Your task to perform on an android device: uninstall "Google Duo" Image 0: 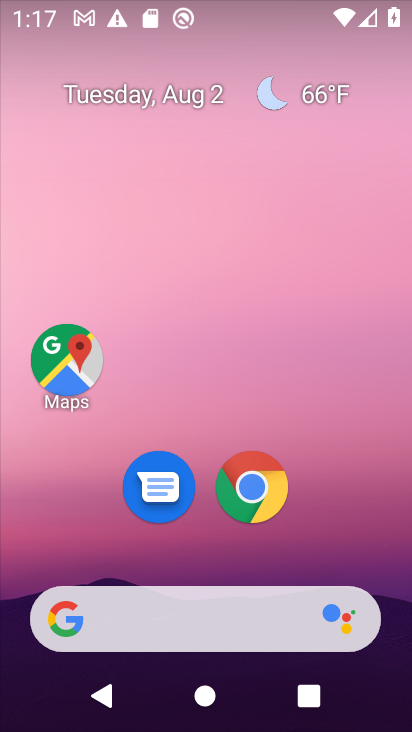
Step 0: drag from (185, 626) to (260, 70)
Your task to perform on an android device: uninstall "Google Duo" Image 1: 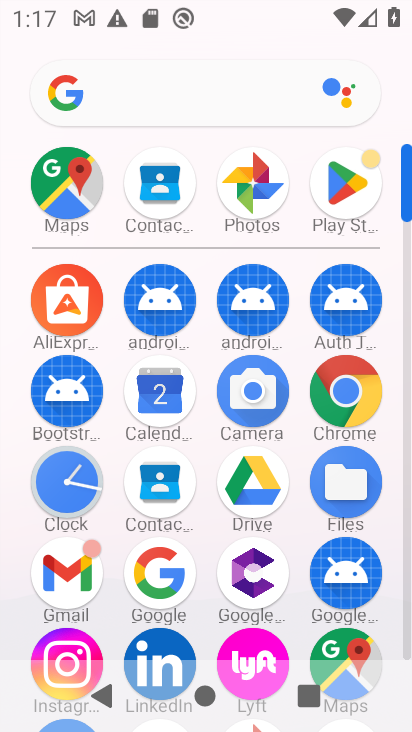
Step 1: click (332, 191)
Your task to perform on an android device: uninstall "Google Duo" Image 2: 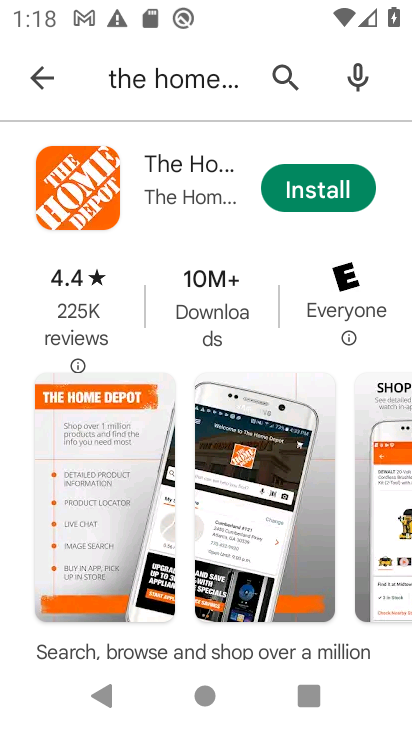
Step 2: click (41, 77)
Your task to perform on an android device: uninstall "Google Duo" Image 3: 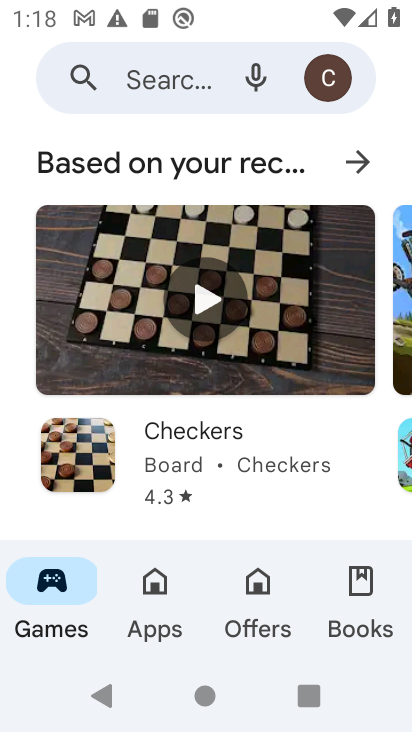
Step 3: click (163, 82)
Your task to perform on an android device: uninstall "Google Duo" Image 4: 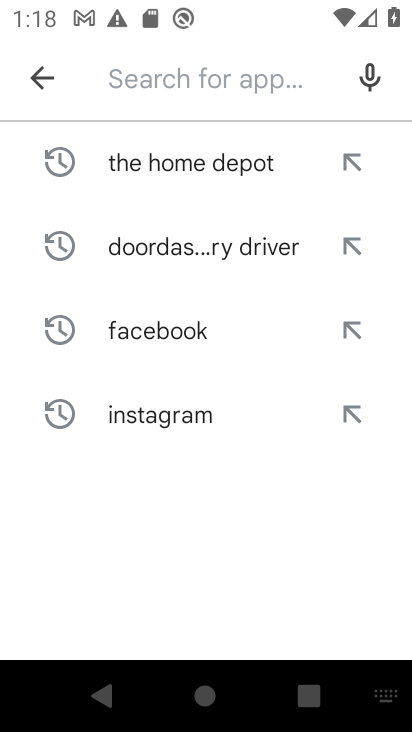
Step 4: type "https://www.amazon.in/Sparx-SM-214-Black-Flourescent-Sneakers/dp/B016BZKYHG/ref=sr_1_2?keywords=sparx+lofer+shooesfor+men&qid=1659428253&sprefix=spark+laofer+%2Caps%2C220&sr=8-2"
Your task to perform on an android device: uninstall "Google Duo" Image 5: 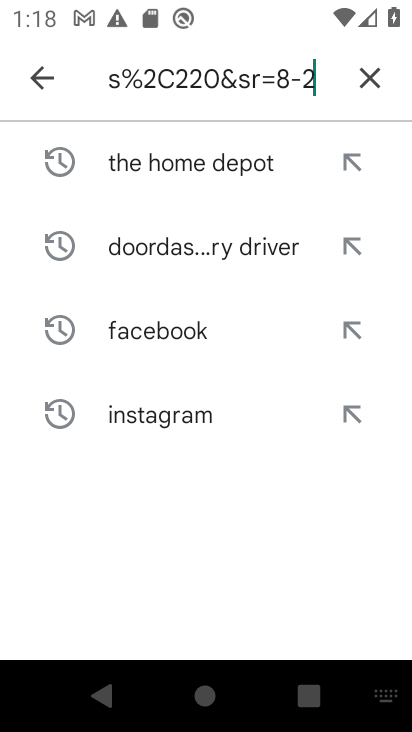
Step 5: type ""
Your task to perform on an android device: uninstall "Google Duo" Image 6: 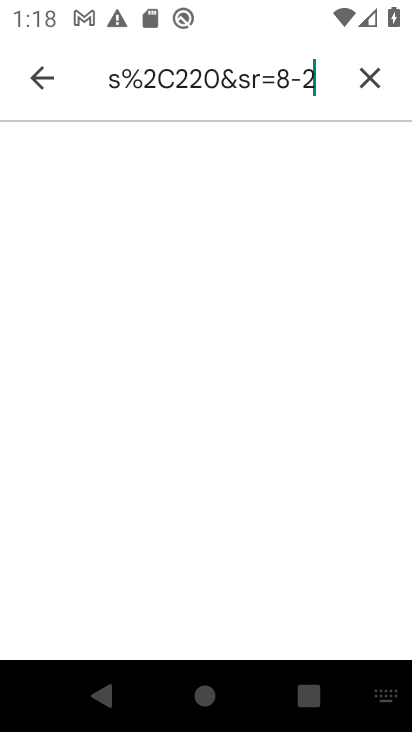
Step 6: click (363, 74)
Your task to perform on an android device: uninstall "Google Duo" Image 7: 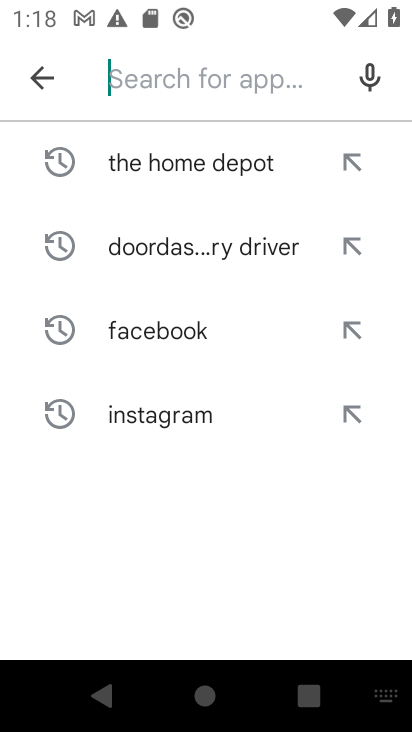
Step 7: type "Google Duo"
Your task to perform on an android device: uninstall "Google Duo" Image 8: 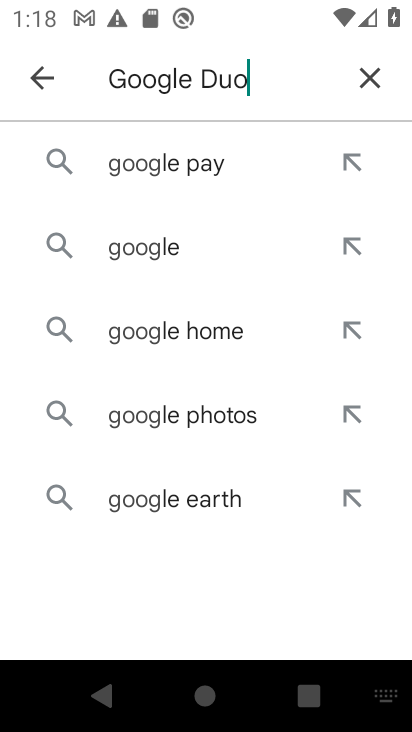
Step 8: type ""
Your task to perform on an android device: uninstall "Google Duo" Image 9: 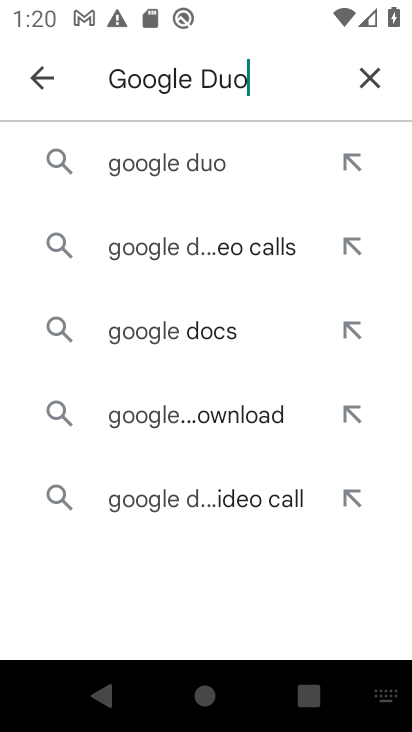
Step 9: click (259, 161)
Your task to perform on an android device: uninstall "Google Duo" Image 10: 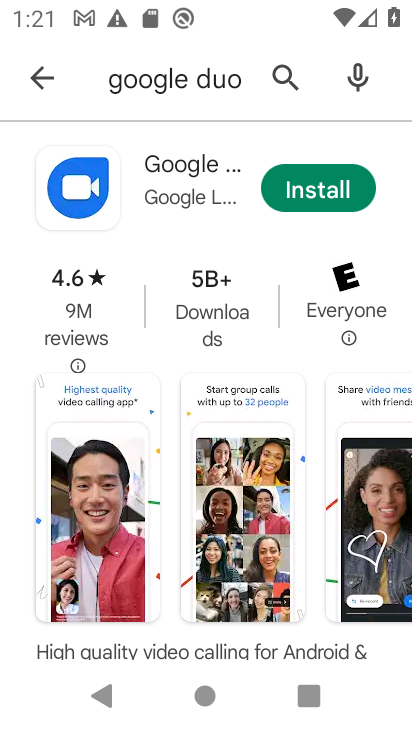
Step 10: task complete